Your task to perform on an android device: toggle notification dots Image 0: 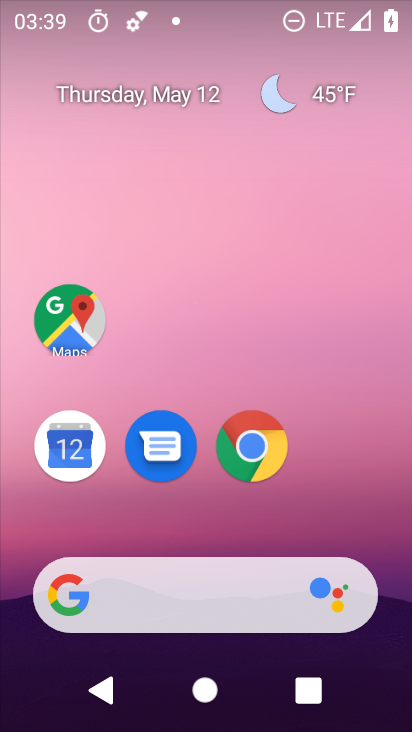
Step 0: drag from (171, 447) to (171, 179)
Your task to perform on an android device: toggle notification dots Image 1: 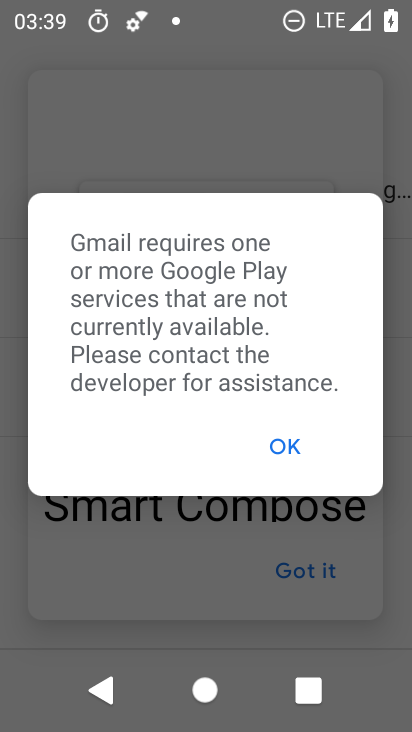
Step 1: press home button
Your task to perform on an android device: toggle notification dots Image 2: 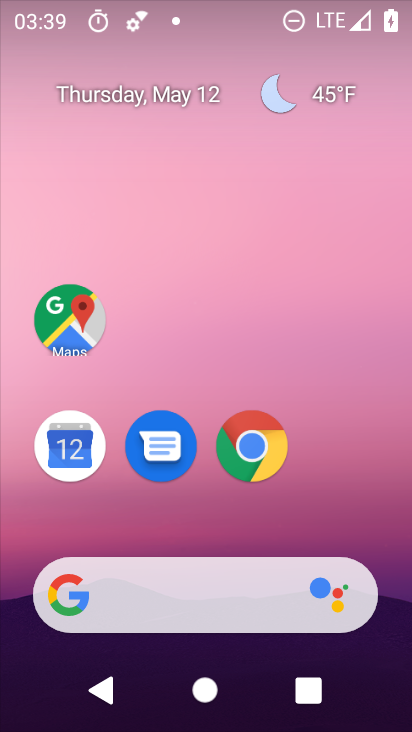
Step 2: drag from (177, 528) to (177, 162)
Your task to perform on an android device: toggle notification dots Image 3: 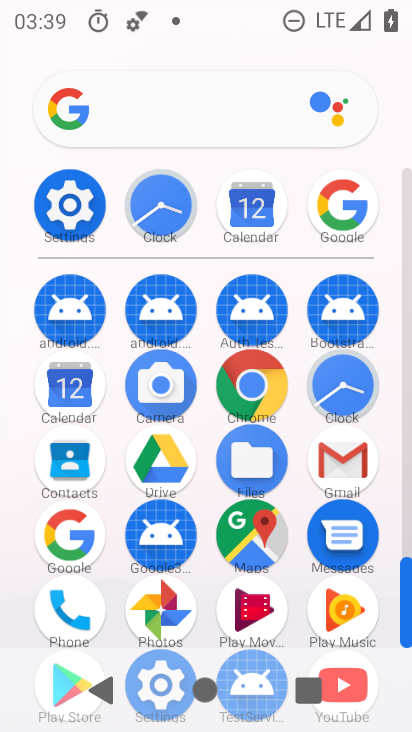
Step 3: click (79, 217)
Your task to perform on an android device: toggle notification dots Image 4: 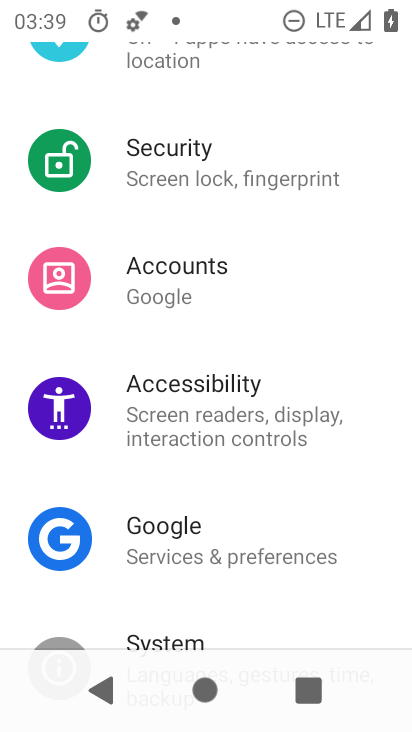
Step 4: drag from (216, 202) to (227, 506)
Your task to perform on an android device: toggle notification dots Image 5: 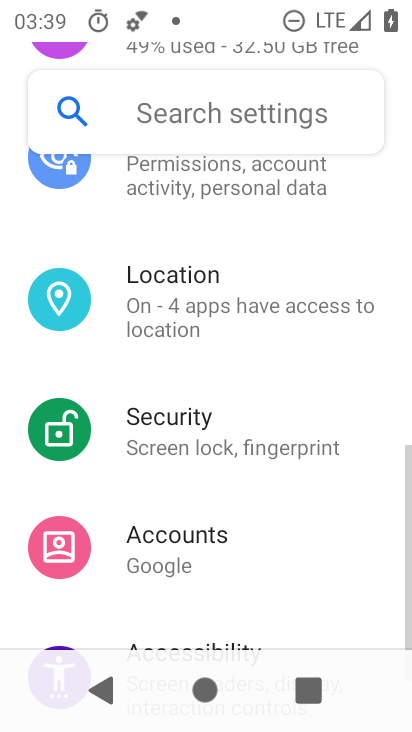
Step 5: drag from (215, 252) to (248, 531)
Your task to perform on an android device: toggle notification dots Image 6: 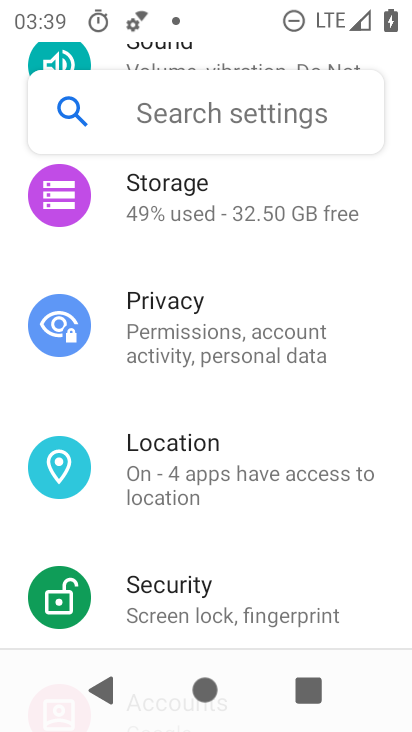
Step 6: drag from (216, 297) to (232, 554)
Your task to perform on an android device: toggle notification dots Image 7: 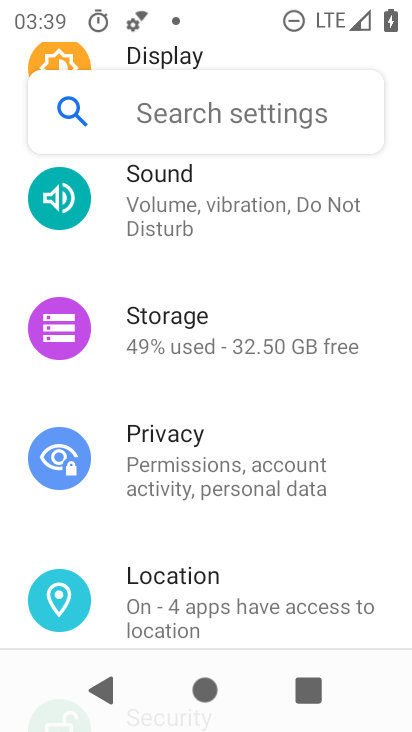
Step 7: drag from (213, 199) to (250, 539)
Your task to perform on an android device: toggle notification dots Image 8: 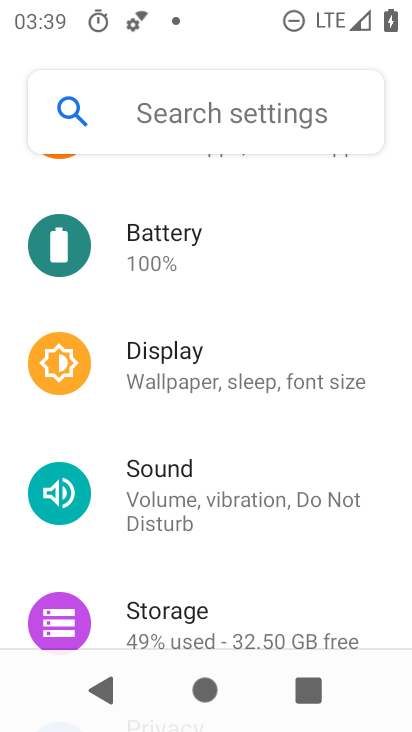
Step 8: drag from (192, 202) to (222, 567)
Your task to perform on an android device: toggle notification dots Image 9: 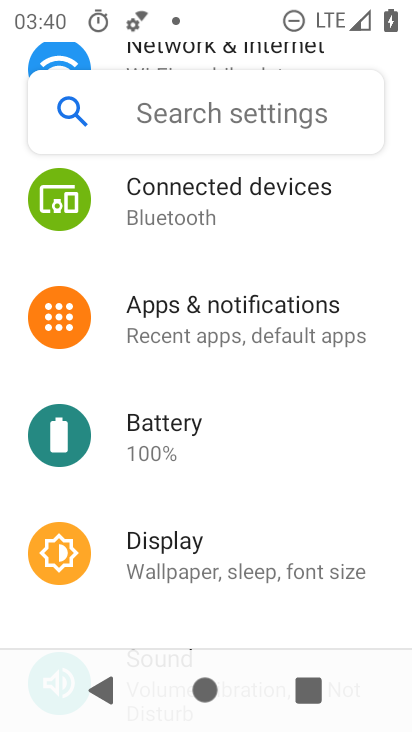
Step 9: click (208, 342)
Your task to perform on an android device: toggle notification dots Image 10: 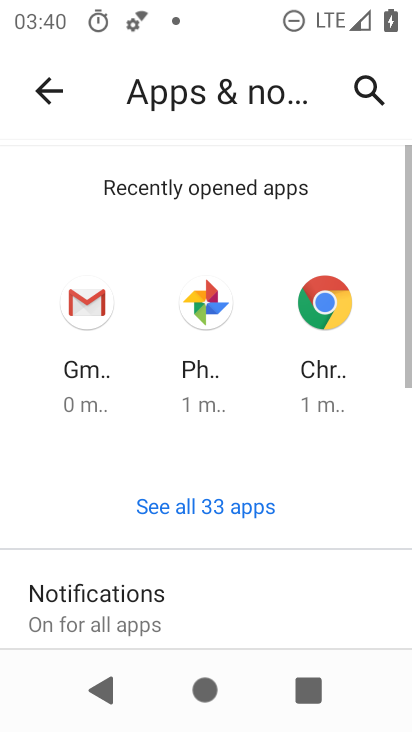
Step 10: drag from (267, 531) to (267, 239)
Your task to perform on an android device: toggle notification dots Image 11: 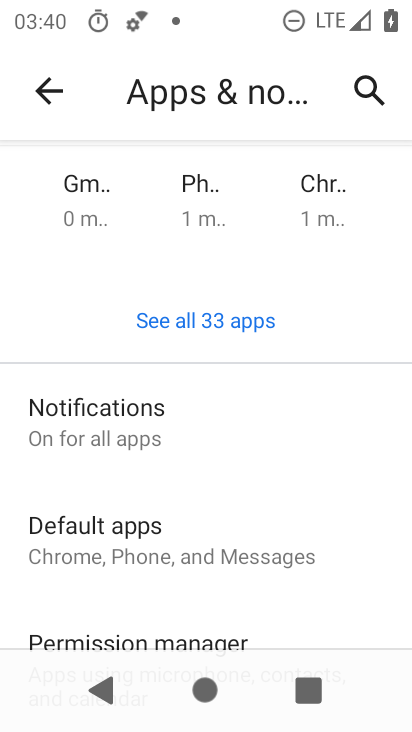
Step 11: click (160, 423)
Your task to perform on an android device: toggle notification dots Image 12: 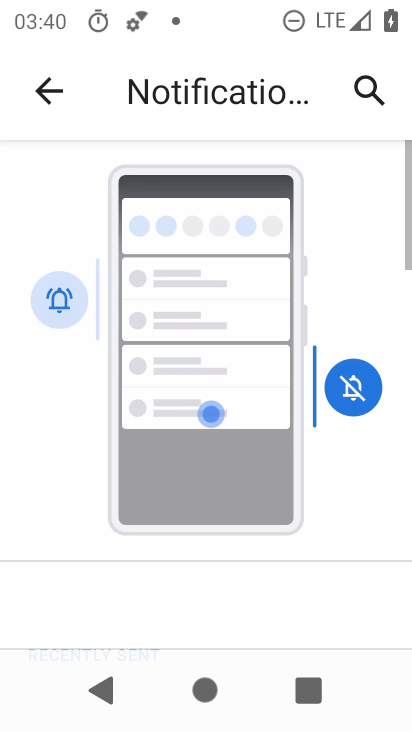
Step 12: drag from (203, 513) to (246, 148)
Your task to perform on an android device: toggle notification dots Image 13: 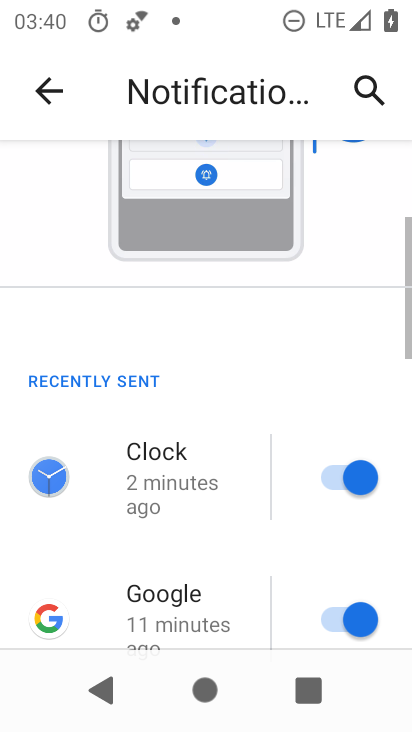
Step 13: drag from (238, 436) to (235, 232)
Your task to perform on an android device: toggle notification dots Image 14: 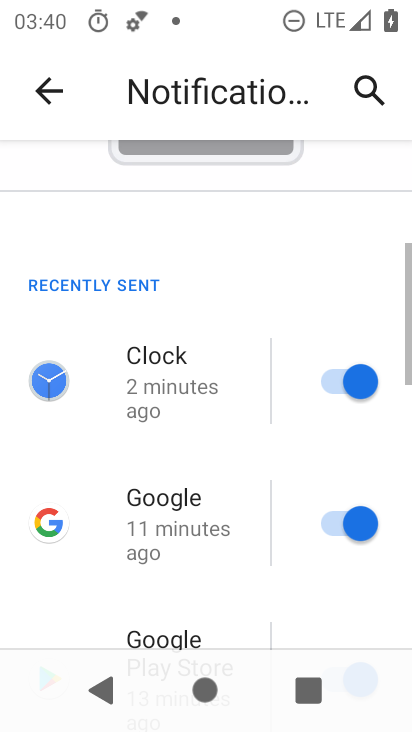
Step 14: drag from (199, 515) to (200, 230)
Your task to perform on an android device: toggle notification dots Image 15: 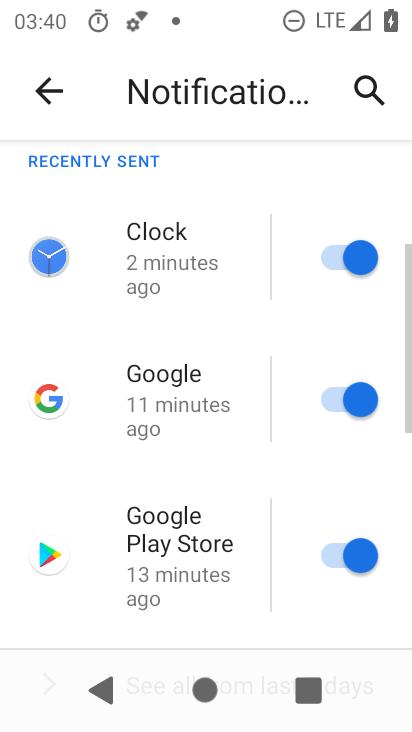
Step 15: drag from (205, 495) to (222, 239)
Your task to perform on an android device: toggle notification dots Image 16: 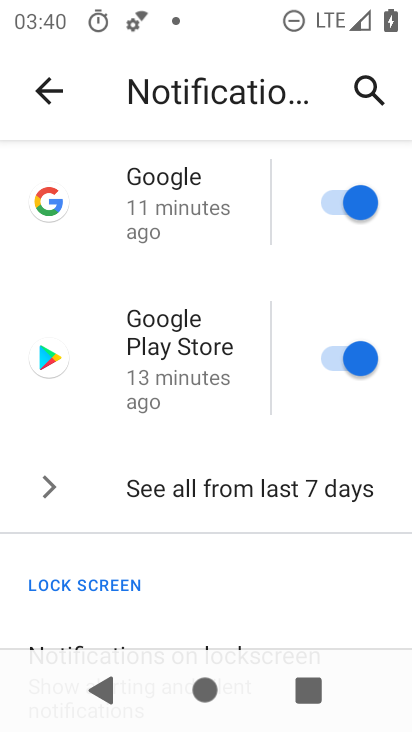
Step 16: drag from (222, 442) to (251, 225)
Your task to perform on an android device: toggle notification dots Image 17: 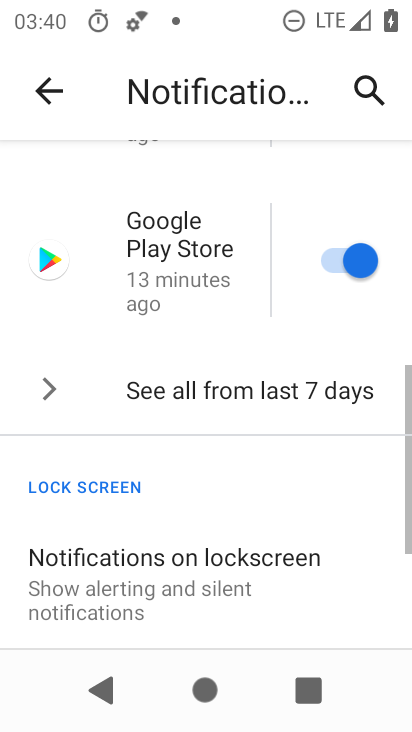
Step 17: drag from (215, 533) to (224, 277)
Your task to perform on an android device: toggle notification dots Image 18: 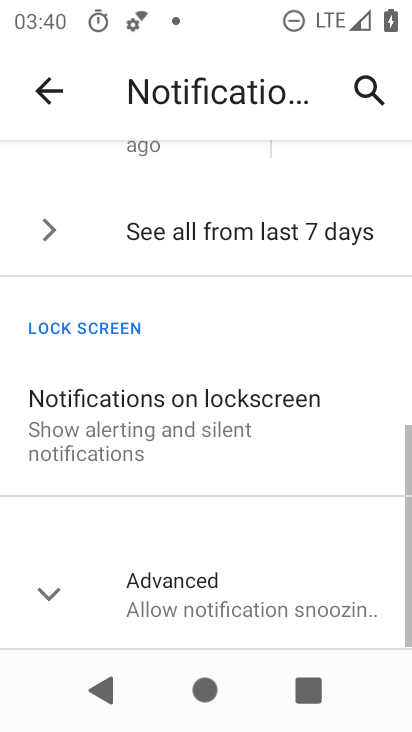
Step 18: drag from (229, 535) to (228, 380)
Your task to perform on an android device: toggle notification dots Image 19: 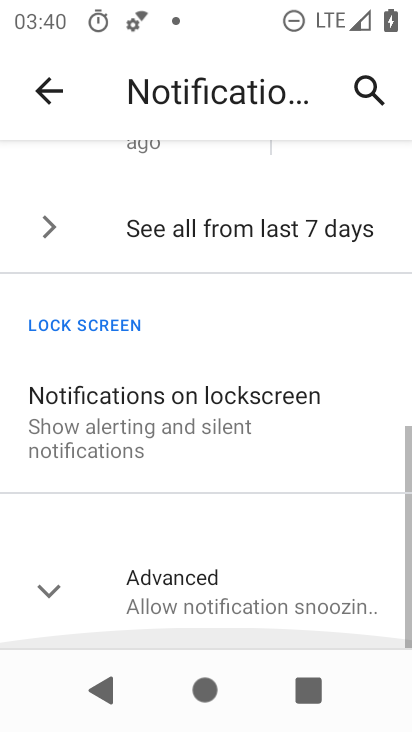
Step 19: click (194, 616)
Your task to perform on an android device: toggle notification dots Image 20: 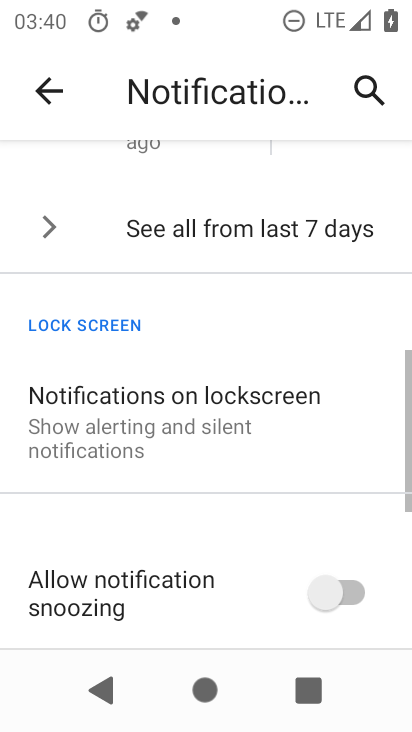
Step 20: drag from (196, 614) to (248, 321)
Your task to perform on an android device: toggle notification dots Image 21: 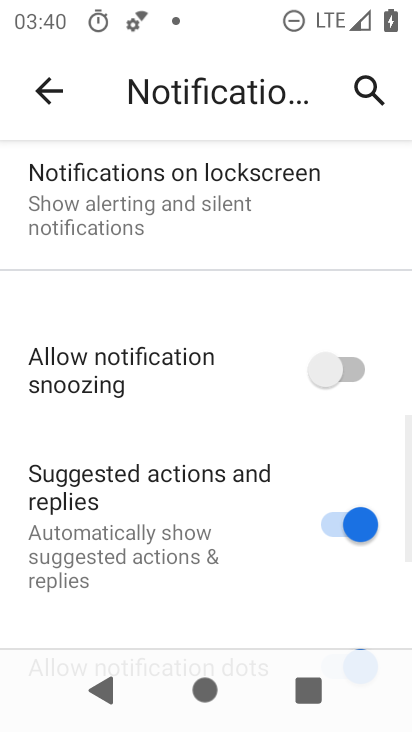
Step 21: drag from (269, 565) to (268, 309)
Your task to perform on an android device: toggle notification dots Image 22: 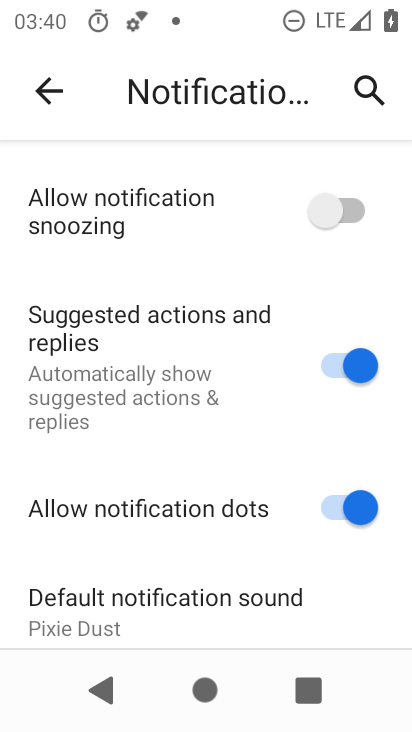
Step 22: click (331, 507)
Your task to perform on an android device: toggle notification dots Image 23: 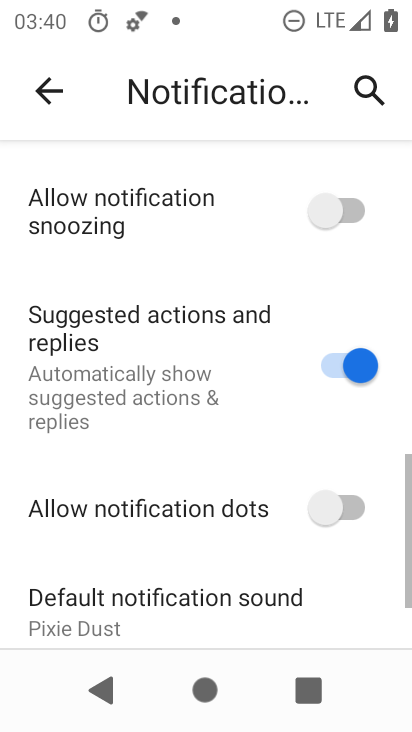
Step 23: task complete